Your task to perform on an android device: Go to Reddit.com Image 0: 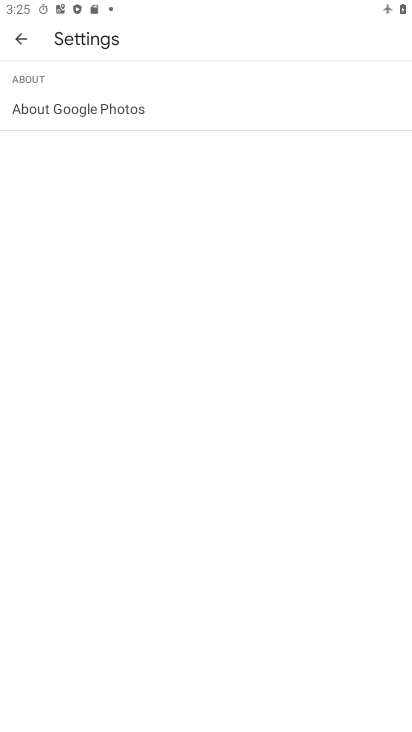
Step 0: press back button
Your task to perform on an android device: Go to Reddit.com Image 1: 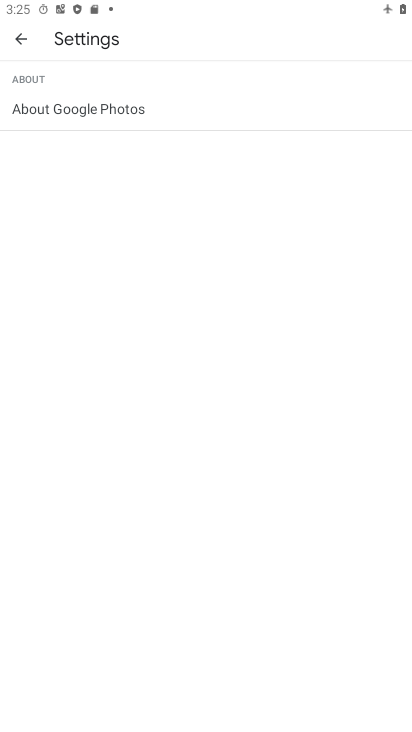
Step 1: press home button
Your task to perform on an android device: Go to Reddit.com Image 2: 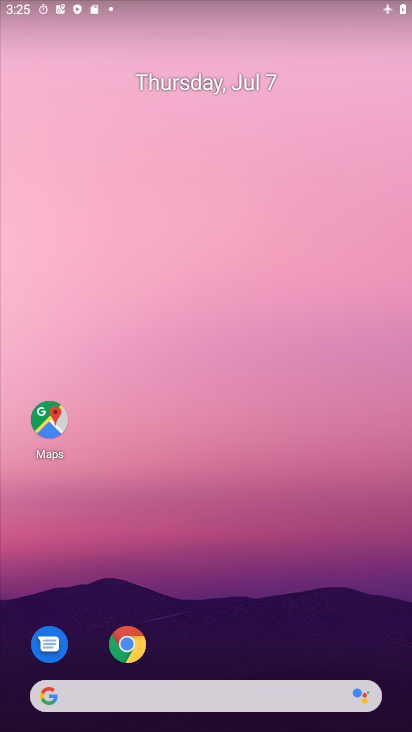
Step 2: click (147, 657)
Your task to perform on an android device: Go to Reddit.com Image 3: 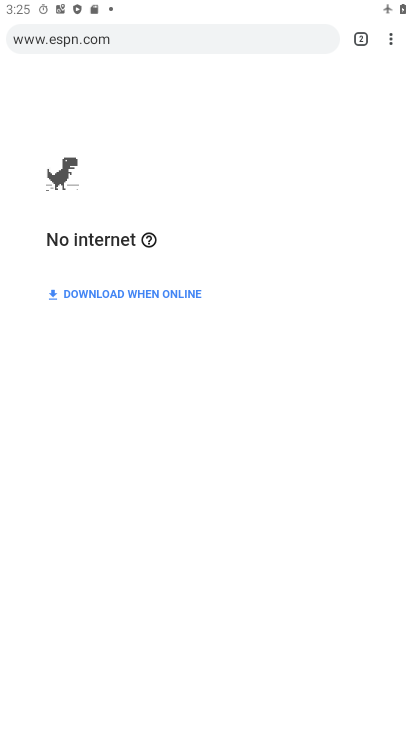
Step 3: click (360, 31)
Your task to perform on an android device: Go to Reddit.com Image 4: 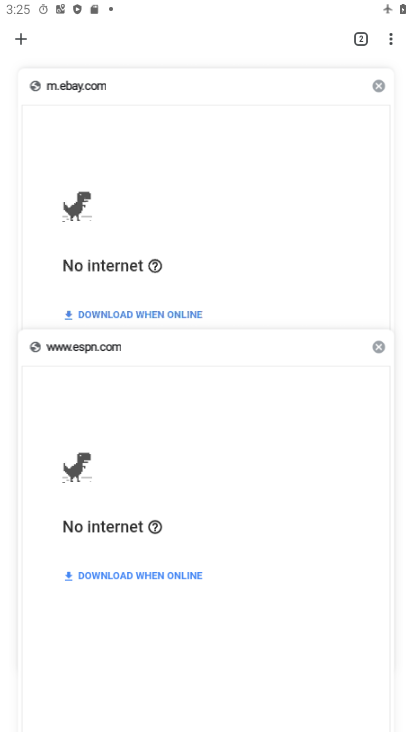
Step 4: click (21, 35)
Your task to perform on an android device: Go to Reddit.com Image 5: 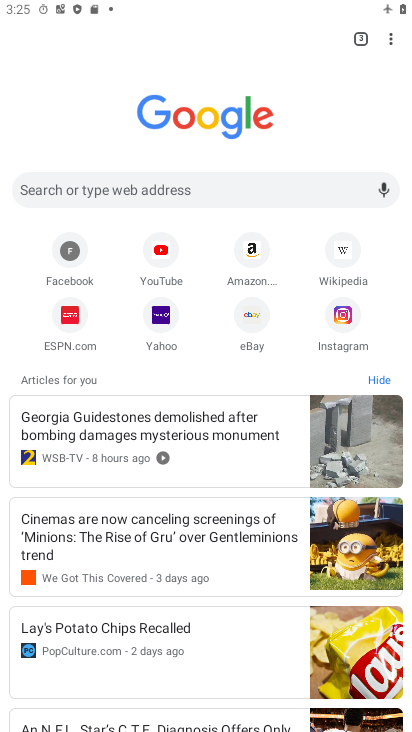
Step 5: click (119, 170)
Your task to perform on an android device: Go to Reddit.com Image 6: 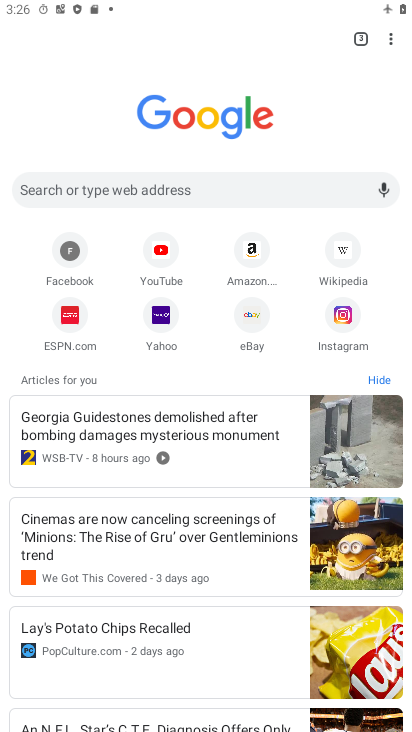
Step 6: click (67, 197)
Your task to perform on an android device: Go to Reddit.com Image 7: 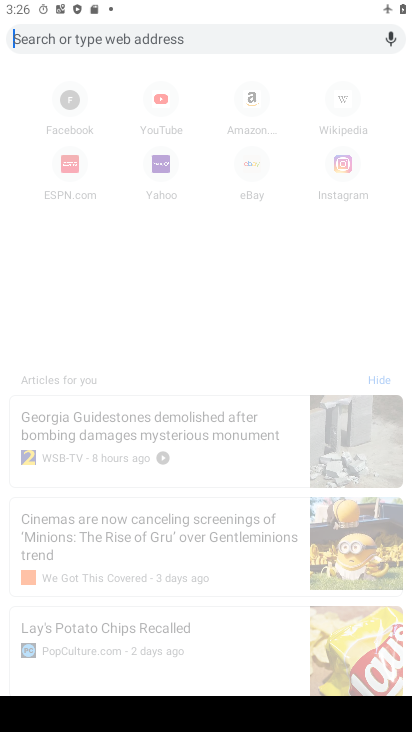
Step 7: type "reddit"
Your task to perform on an android device: Go to Reddit.com Image 8: 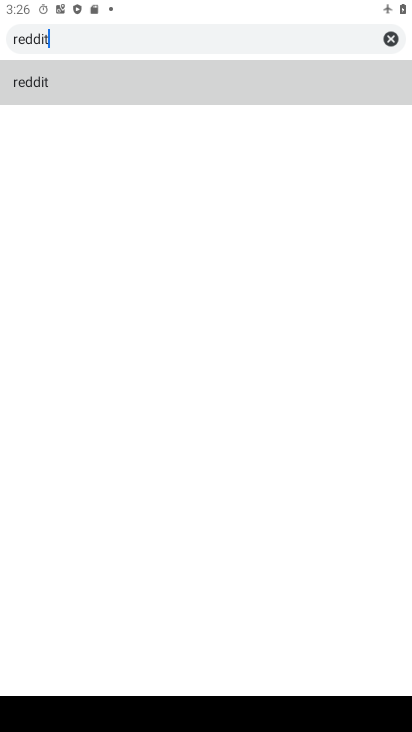
Step 8: type ""
Your task to perform on an android device: Go to Reddit.com Image 9: 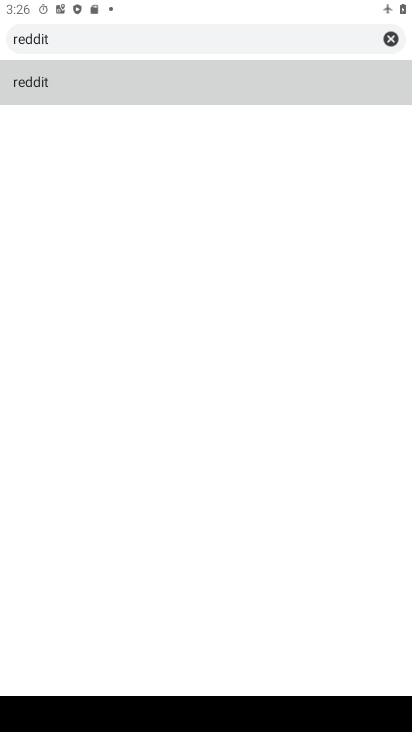
Step 9: task complete